Your task to perform on an android device: toggle show notifications on the lock screen Image 0: 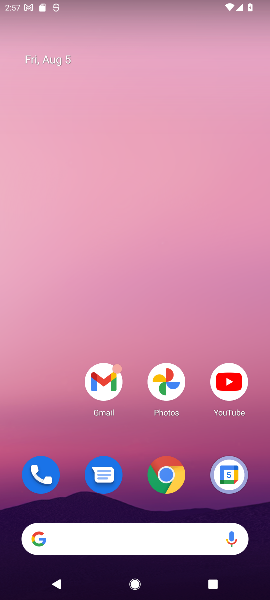
Step 0: drag from (243, 582) to (183, 73)
Your task to perform on an android device: toggle show notifications on the lock screen Image 1: 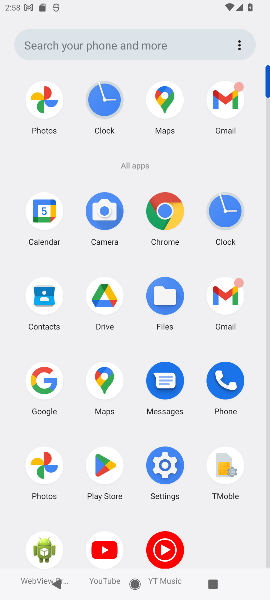
Step 1: click (160, 463)
Your task to perform on an android device: toggle show notifications on the lock screen Image 2: 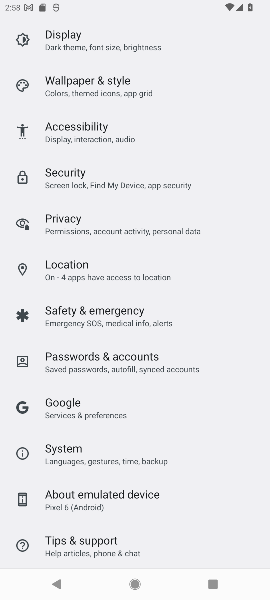
Step 2: drag from (184, 70) to (170, 343)
Your task to perform on an android device: toggle show notifications on the lock screen Image 3: 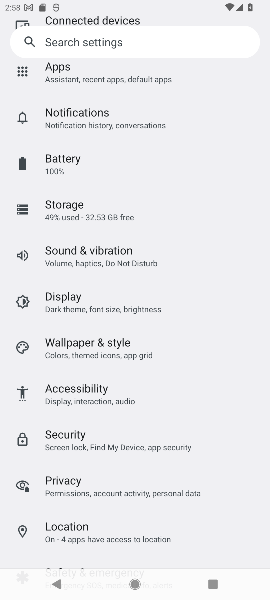
Step 3: click (98, 116)
Your task to perform on an android device: toggle show notifications on the lock screen Image 4: 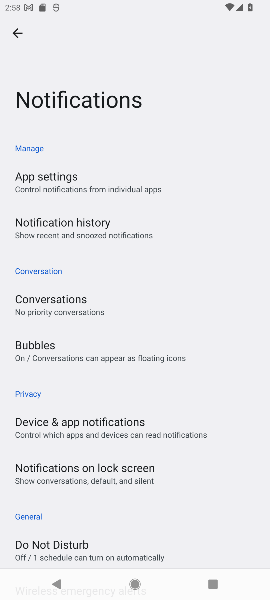
Step 4: click (105, 473)
Your task to perform on an android device: toggle show notifications on the lock screen Image 5: 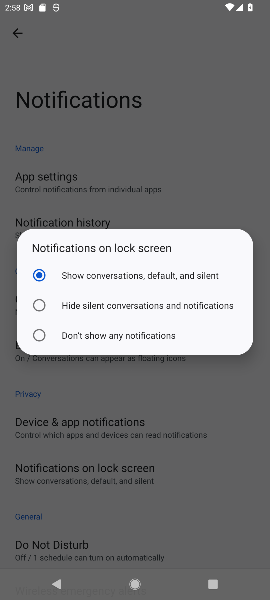
Step 5: click (40, 299)
Your task to perform on an android device: toggle show notifications on the lock screen Image 6: 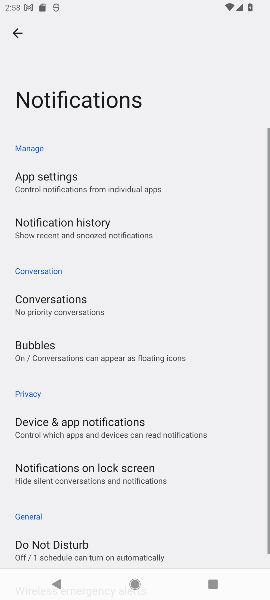
Step 6: task complete